Your task to perform on an android device: turn on javascript in the chrome app Image 0: 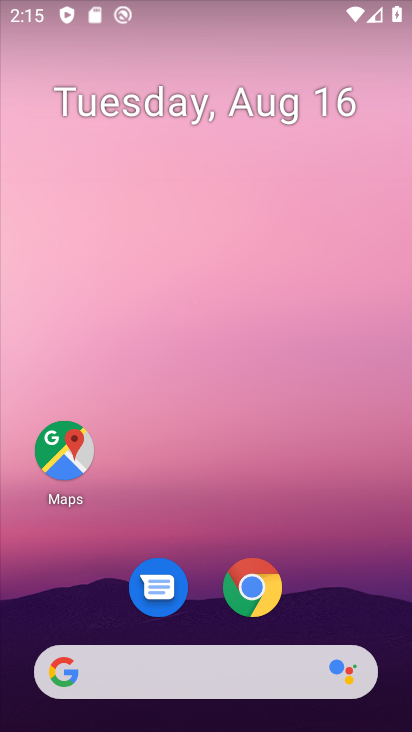
Step 0: drag from (191, 619) to (191, 59)
Your task to perform on an android device: turn on javascript in the chrome app Image 1: 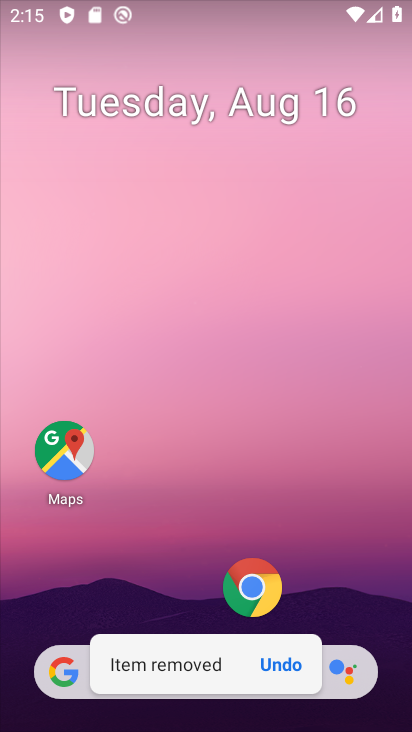
Step 1: click (305, 598)
Your task to perform on an android device: turn on javascript in the chrome app Image 2: 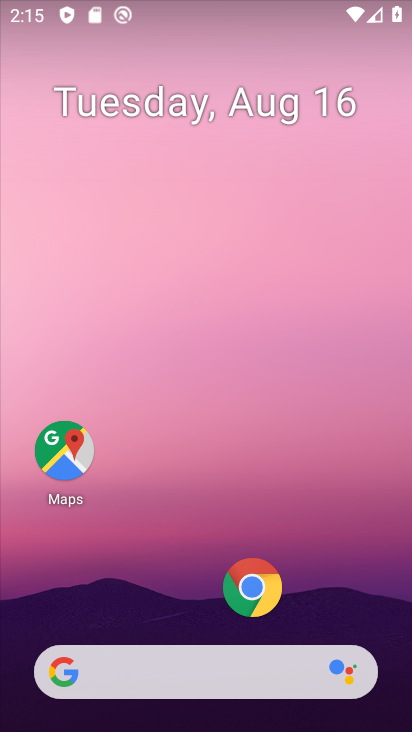
Step 2: drag from (305, 597) to (285, 144)
Your task to perform on an android device: turn on javascript in the chrome app Image 3: 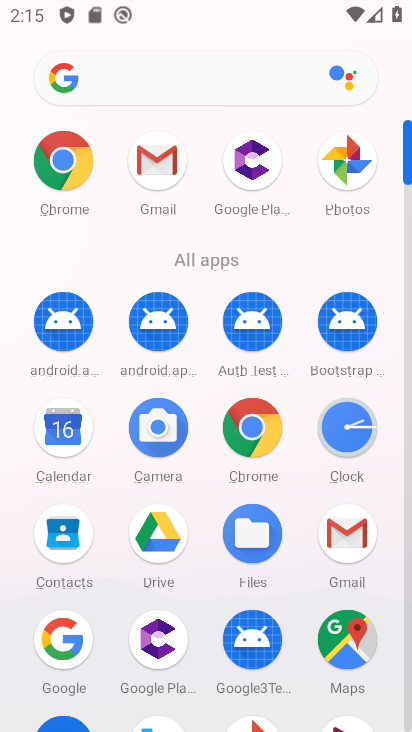
Step 3: click (245, 412)
Your task to perform on an android device: turn on javascript in the chrome app Image 4: 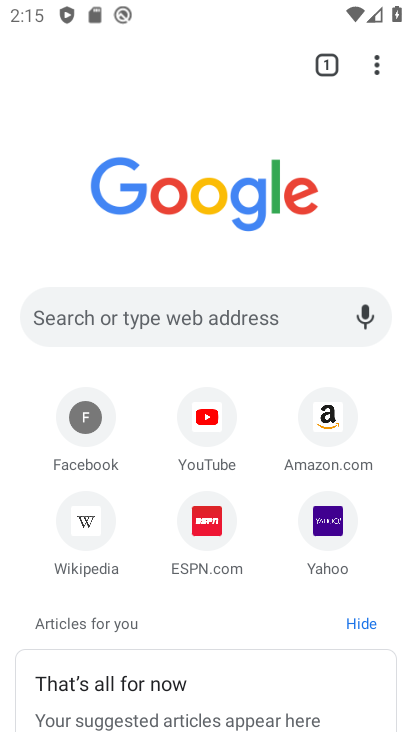
Step 4: click (373, 67)
Your task to perform on an android device: turn on javascript in the chrome app Image 5: 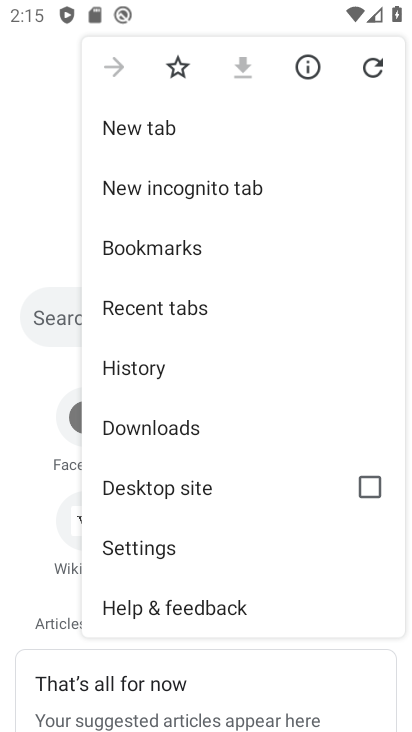
Step 5: click (144, 558)
Your task to perform on an android device: turn on javascript in the chrome app Image 6: 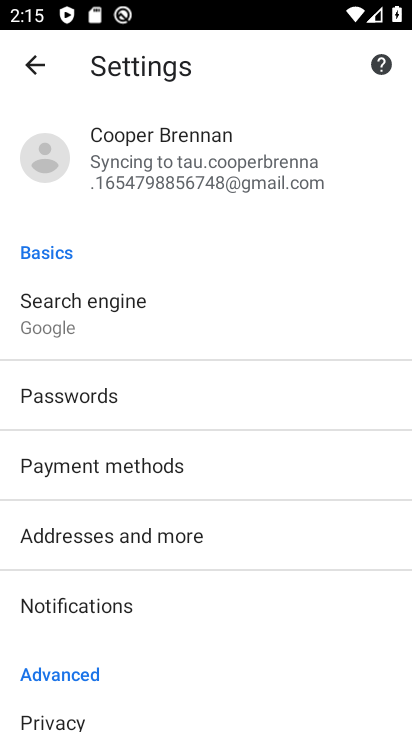
Step 6: drag from (141, 647) to (226, 320)
Your task to perform on an android device: turn on javascript in the chrome app Image 7: 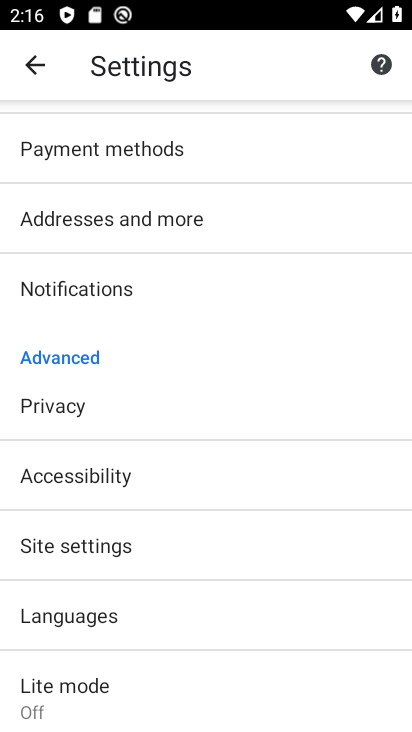
Step 7: click (151, 539)
Your task to perform on an android device: turn on javascript in the chrome app Image 8: 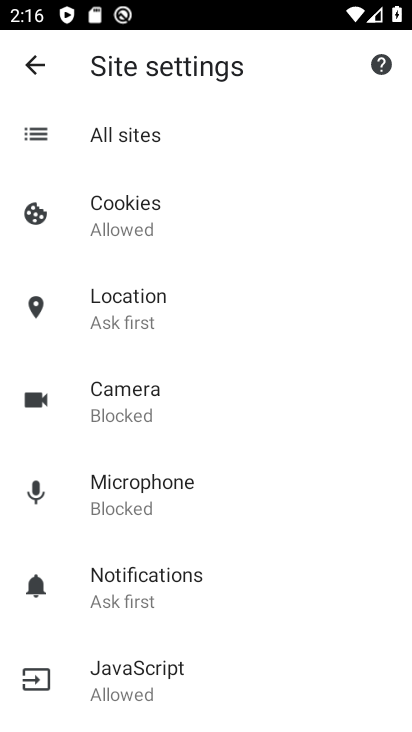
Step 8: click (145, 667)
Your task to perform on an android device: turn on javascript in the chrome app Image 9: 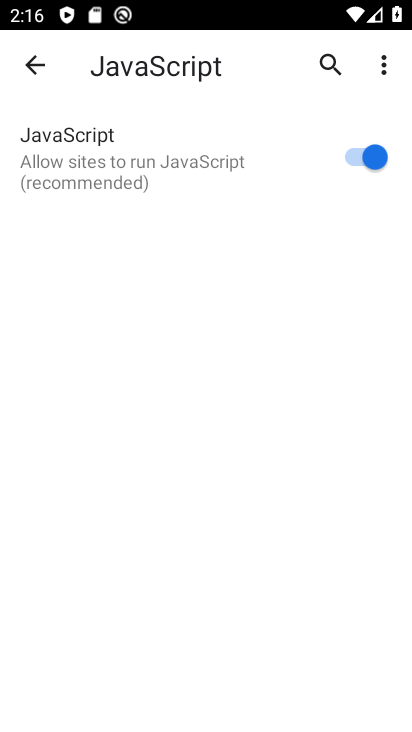
Step 9: task complete